Your task to perform on an android device: Show me the alarms in the clock app Image 0: 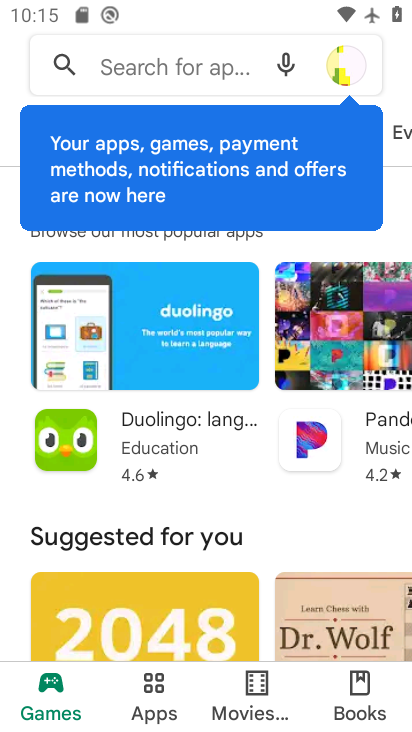
Step 0: press home button
Your task to perform on an android device: Show me the alarms in the clock app Image 1: 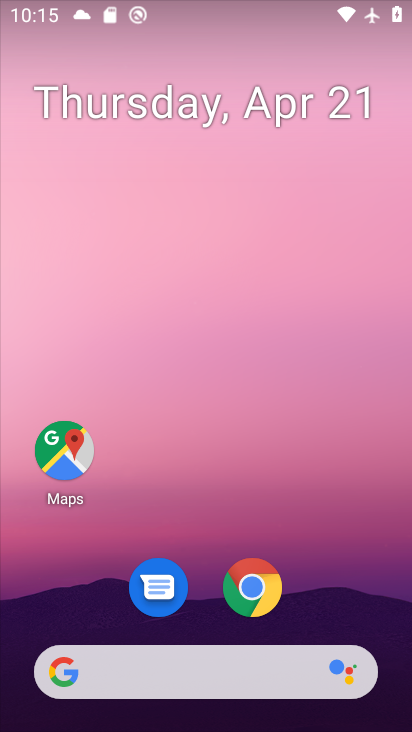
Step 1: drag from (358, 539) to (357, 101)
Your task to perform on an android device: Show me the alarms in the clock app Image 2: 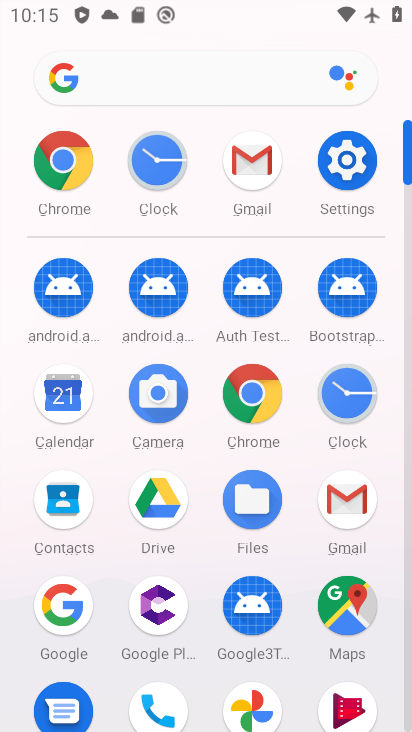
Step 2: click (345, 402)
Your task to perform on an android device: Show me the alarms in the clock app Image 3: 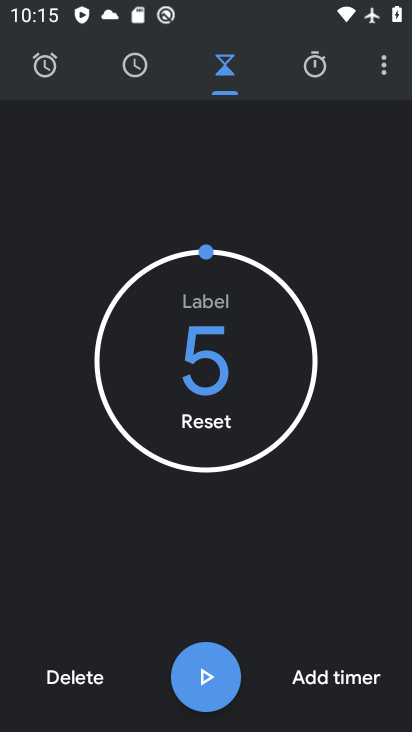
Step 3: click (40, 80)
Your task to perform on an android device: Show me the alarms in the clock app Image 4: 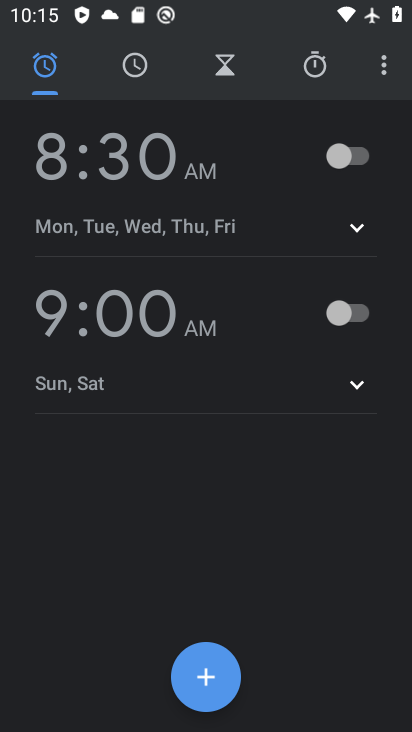
Step 4: task complete